Your task to perform on an android device: turn on notifications settings in the gmail app Image 0: 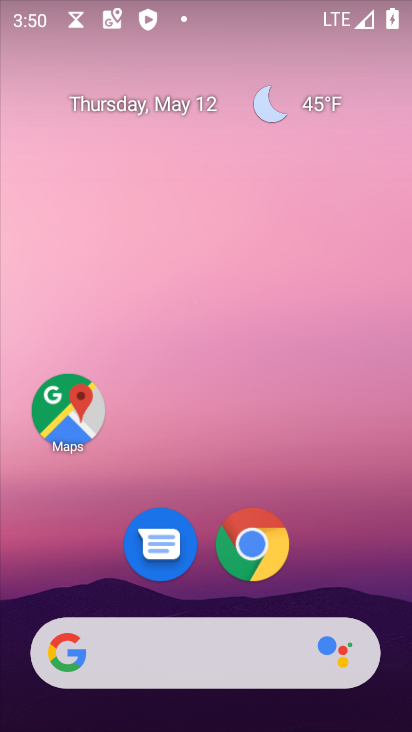
Step 0: drag from (347, 591) to (342, 3)
Your task to perform on an android device: turn on notifications settings in the gmail app Image 1: 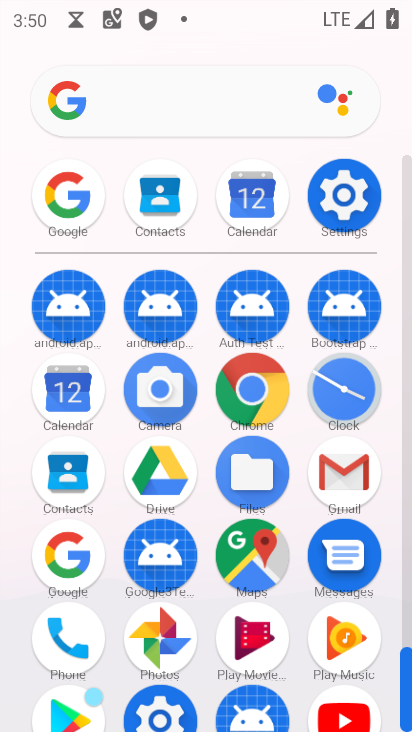
Step 1: click (351, 474)
Your task to perform on an android device: turn on notifications settings in the gmail app Image 2: 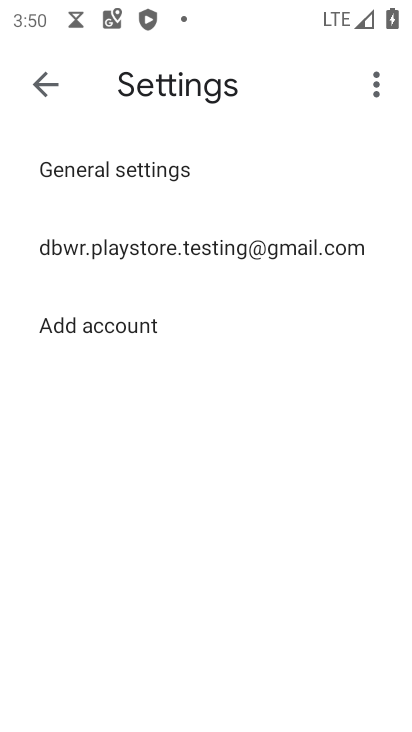
Step 2: click (198, 252)
Your task to perform on an android device: turn on notifications settings in the gmail app Image 3: 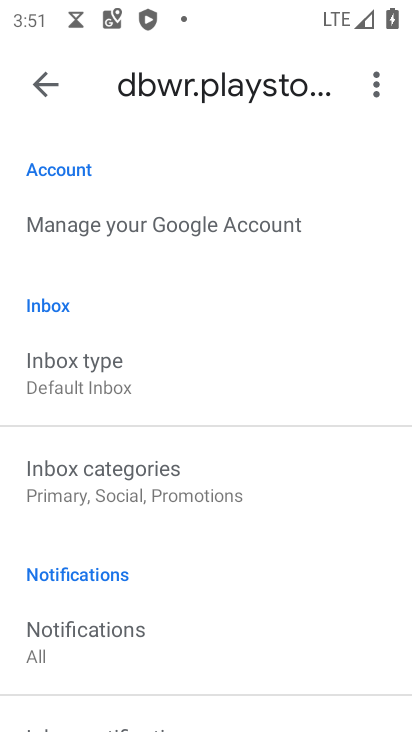
Step 3: drag from (210, 631) to (154, 336)
Your task to perform on an android device: turn on notifications settings in the gmail app Image 4: 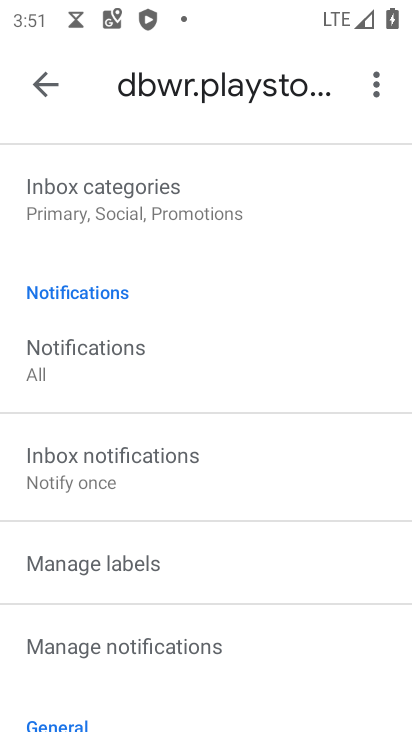
Step 4: click (105, 656)
Your task to perform on an android device: turn on notifications settings in the gmail app Image 5: 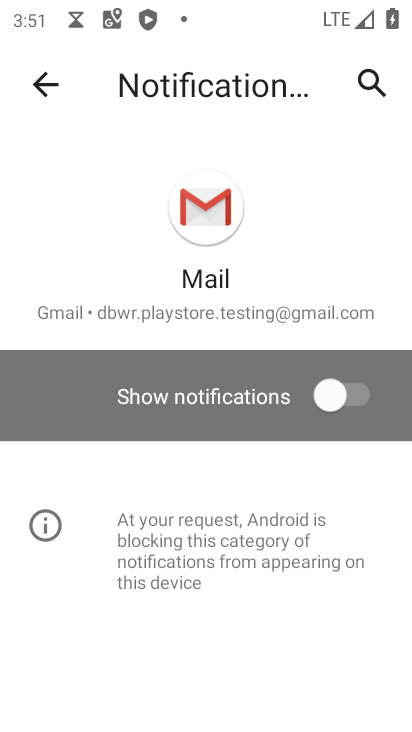
Step 5: click (336, 390)
Your task to perform on an android device: turn on notifications settings in the gmail app Image 6: 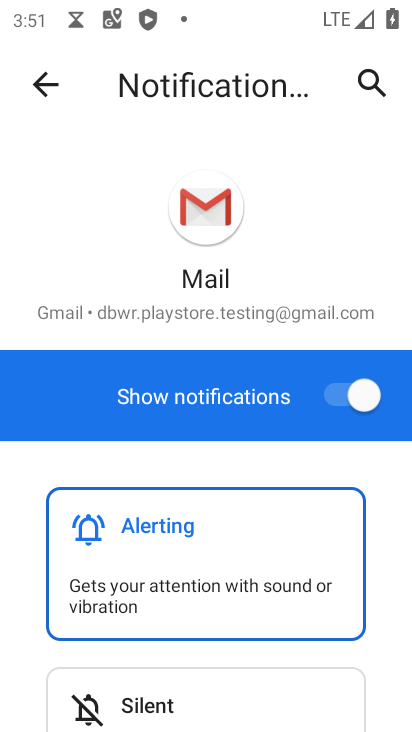
Step 6: task complete